Your task to perform on an android device: Go to Google maps Image 0: 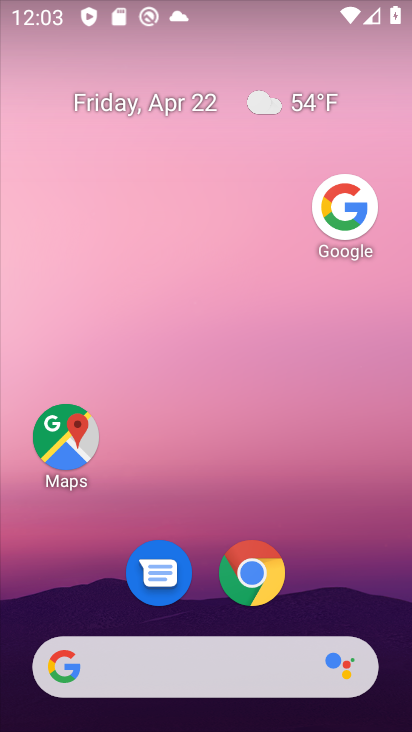
Step 0: drag from (185, 661) to (283, 157)
Your task to perform on an android device: Go to Google maps Image 1: 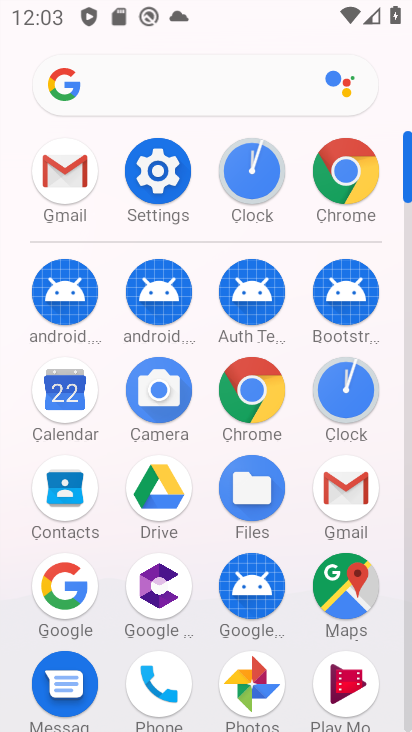
Step 1: click (347, 589)
Your task to perform on an android device: Go to Google maps Image 2: 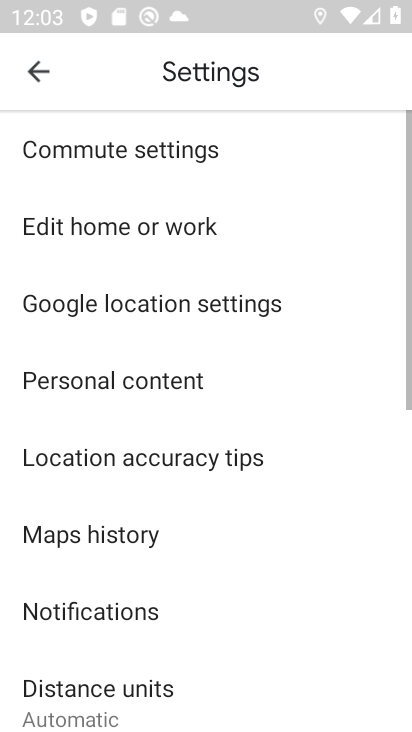
Step 2: click (37, 76)
Your task to perform on an android device: Go to Google maps Image 3: 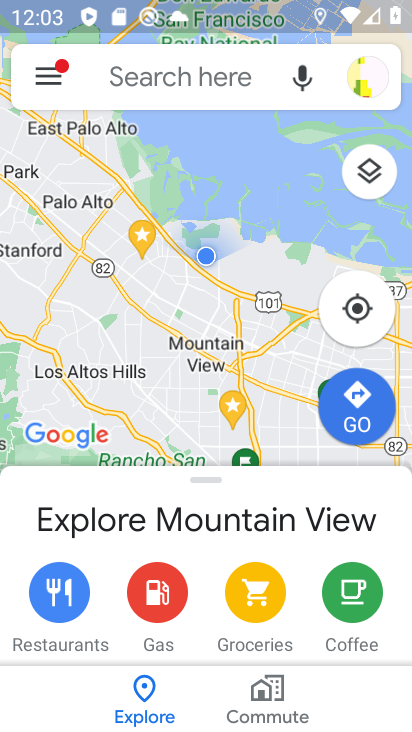
Step 3: task complete